Your task to perform on an android device: open app "Lyft - Rideshare, Bikes, Scooters & Transit" Image 0: 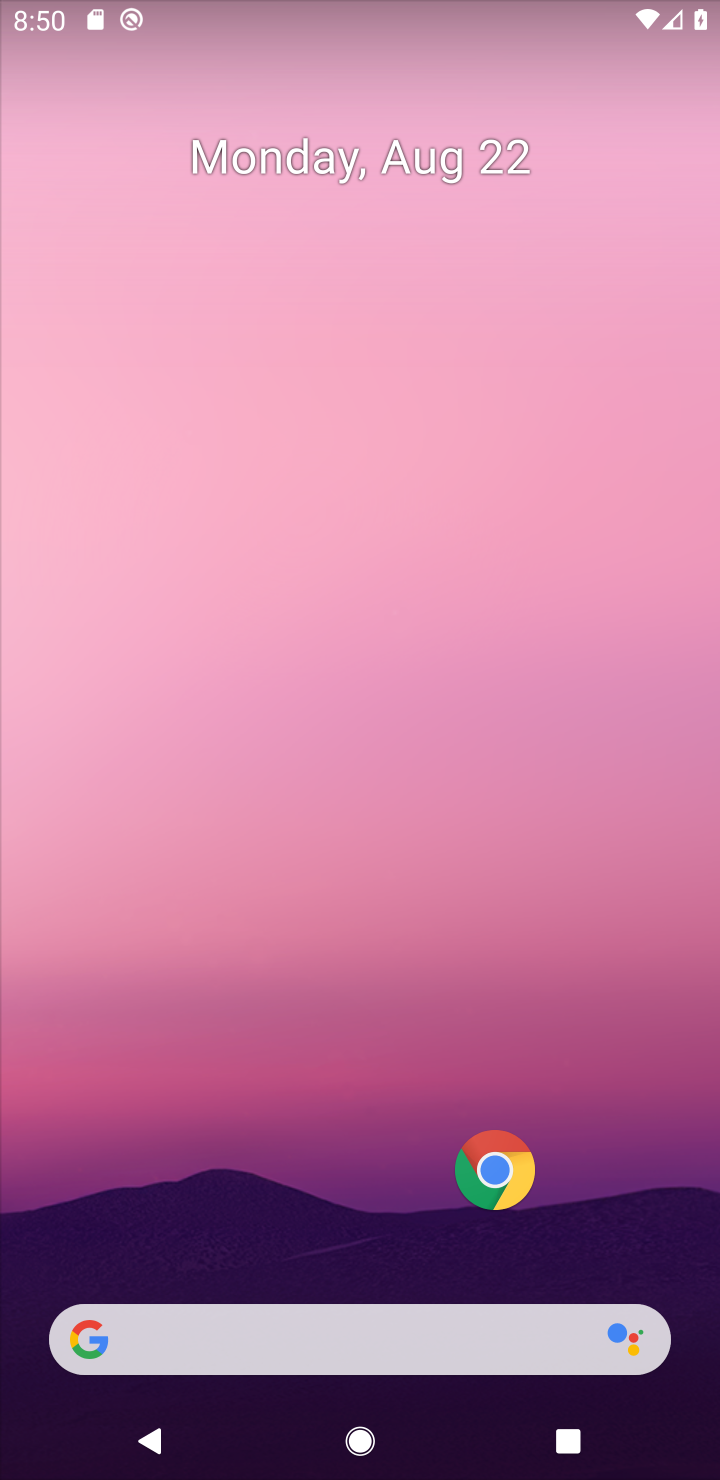
Step 0: drag from (229, 1210) to (439, 53)
Your task to perform on an android device: open app "Lyft - Rideshare, Bikes, Scooters & Transit" Image 1: 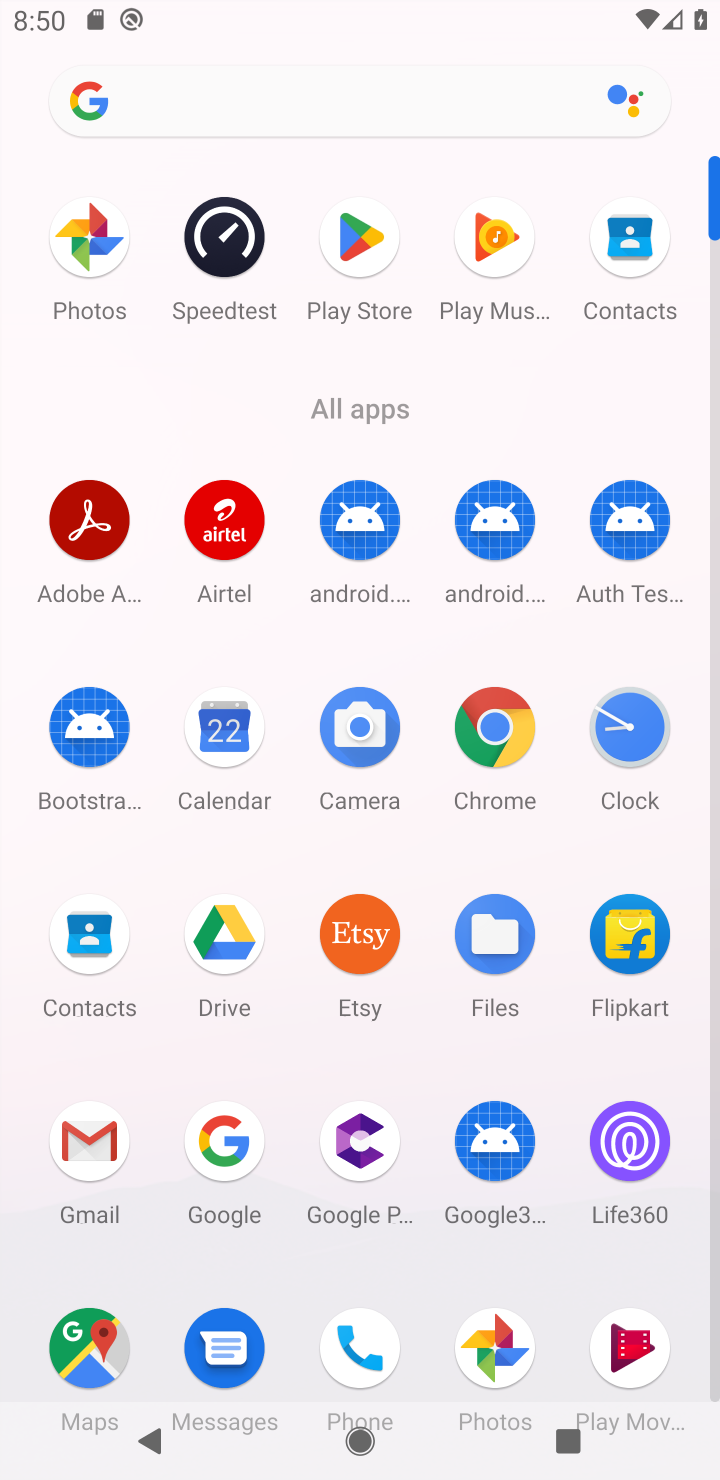
Step 1: click (369, 235)
Your task to perform on an android device: open app "Lyft - Rideshare, Bikes, Scooters & Transit" Image 2: 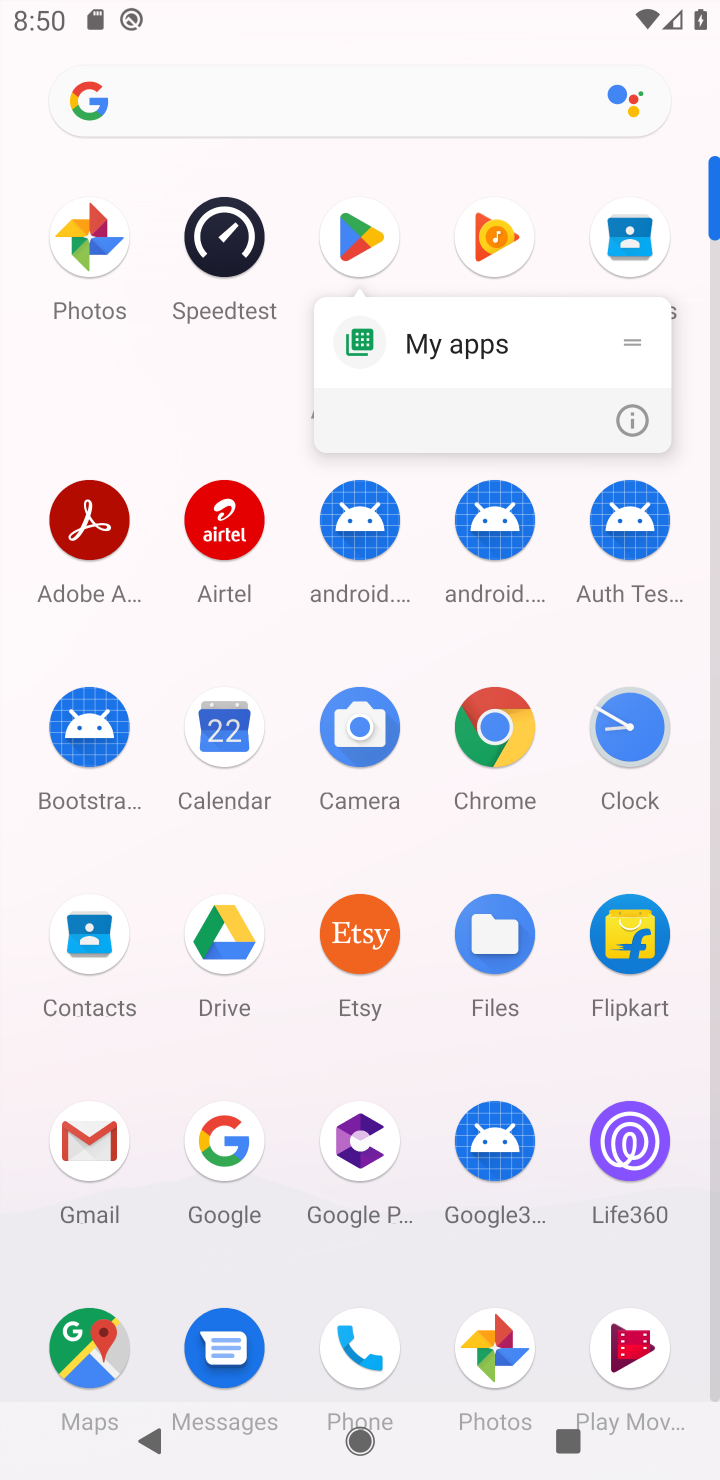
Step 2: click (362, 240)
Your task to perform on an android device: open app "Lyft - Rideshare, Bikes, Scooters & Transit" Image 3: 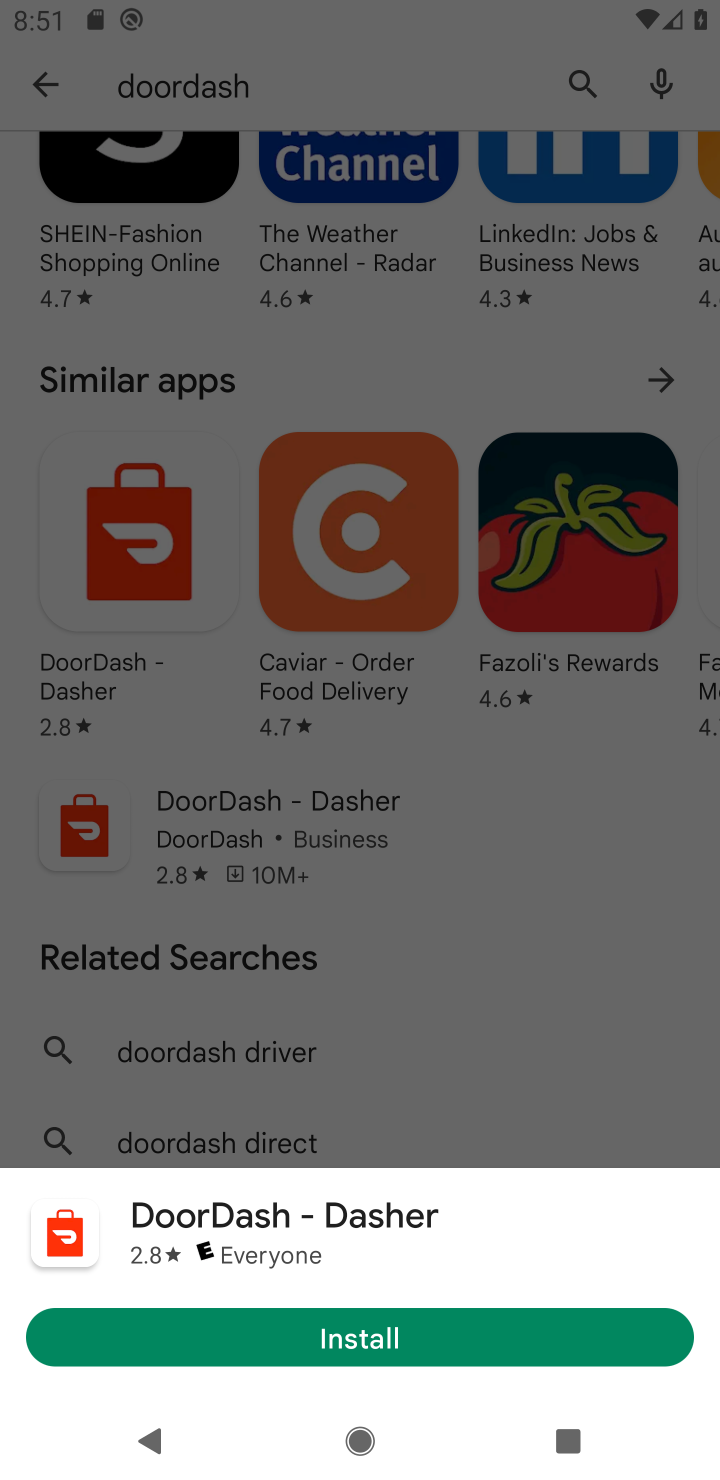
Step 3: click (551, 73)
Your task to perform on an android device: open app "Lyft - Rideshare, Bikes, Scooters & Transit" Image 4: 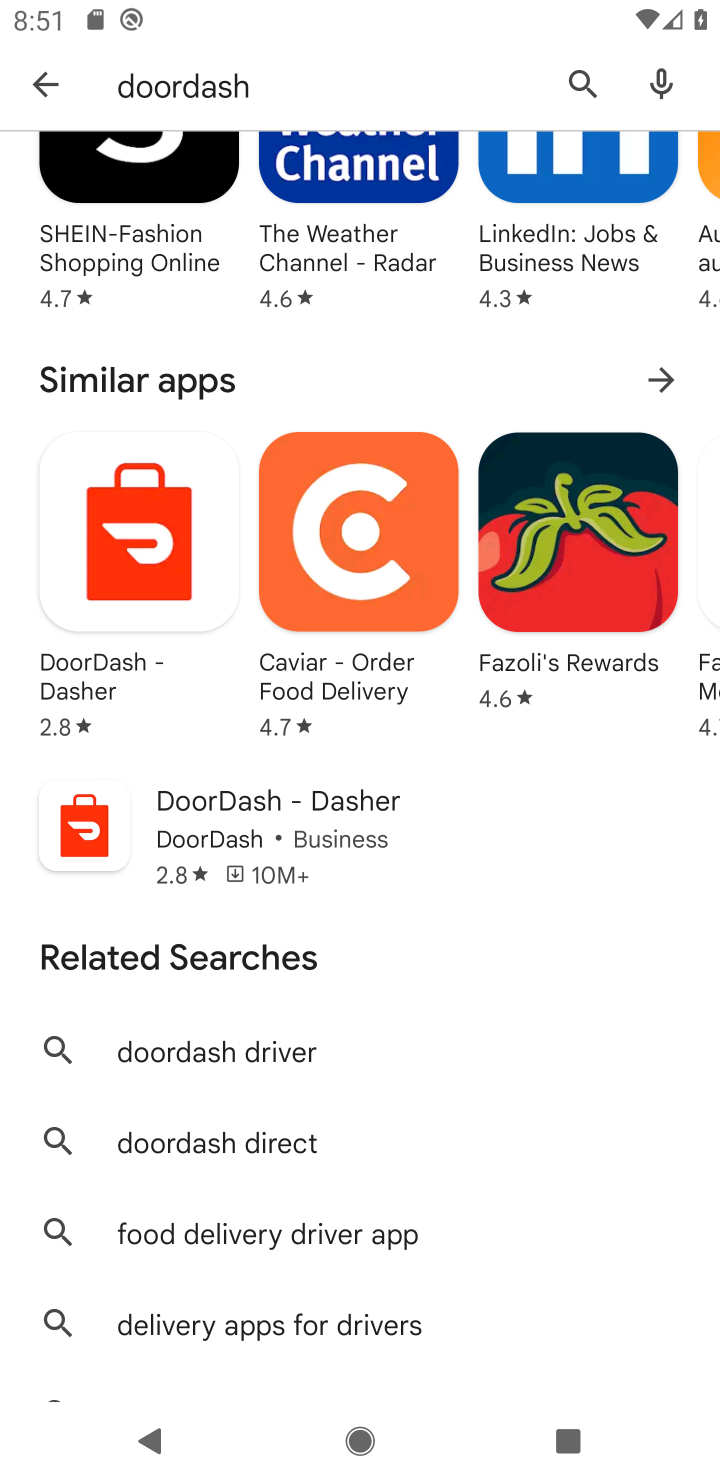
Step 4: click (601, 69)
Your task to perform on an android device: open app "Lyft - Rideshare, Bikes, Scooters & Transit" Image 5: 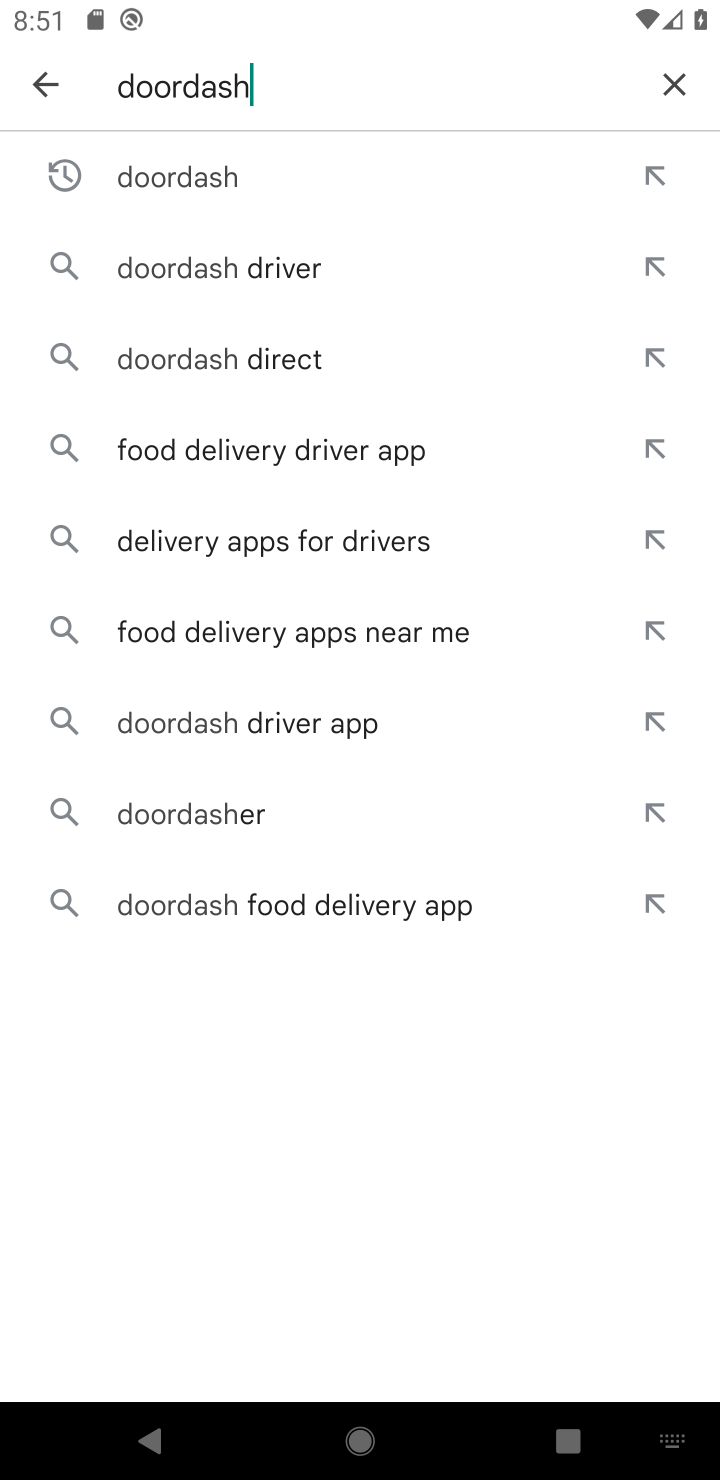
Step 5: click (675, 84)
Your task to perform on an android device: open app "Lyft - Rideshare, Bikes, Scooters & Transit" Image 6: 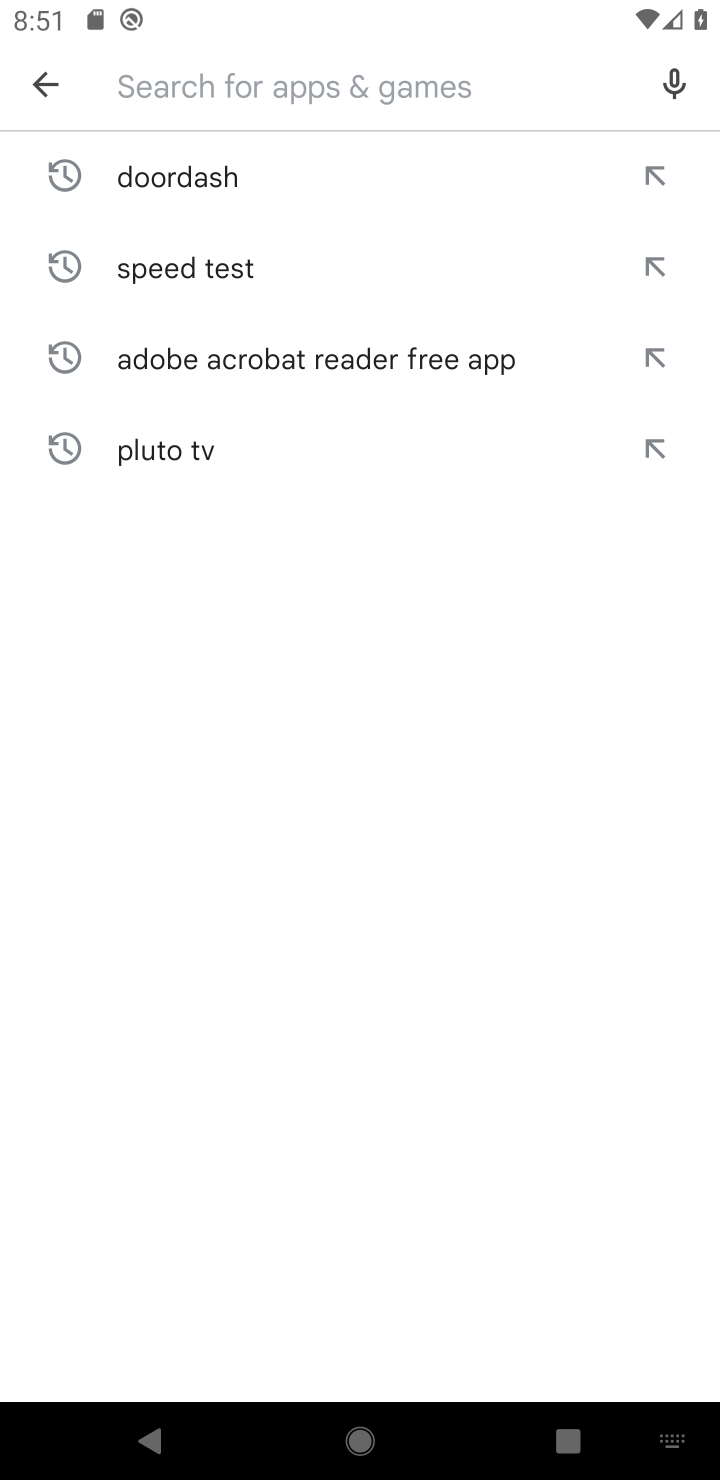
Step 6: click (448, 86)
Your task to perform on an android device: open app "Lyft - Rideshare, Bikes, Scooters & Transit" Image 7: 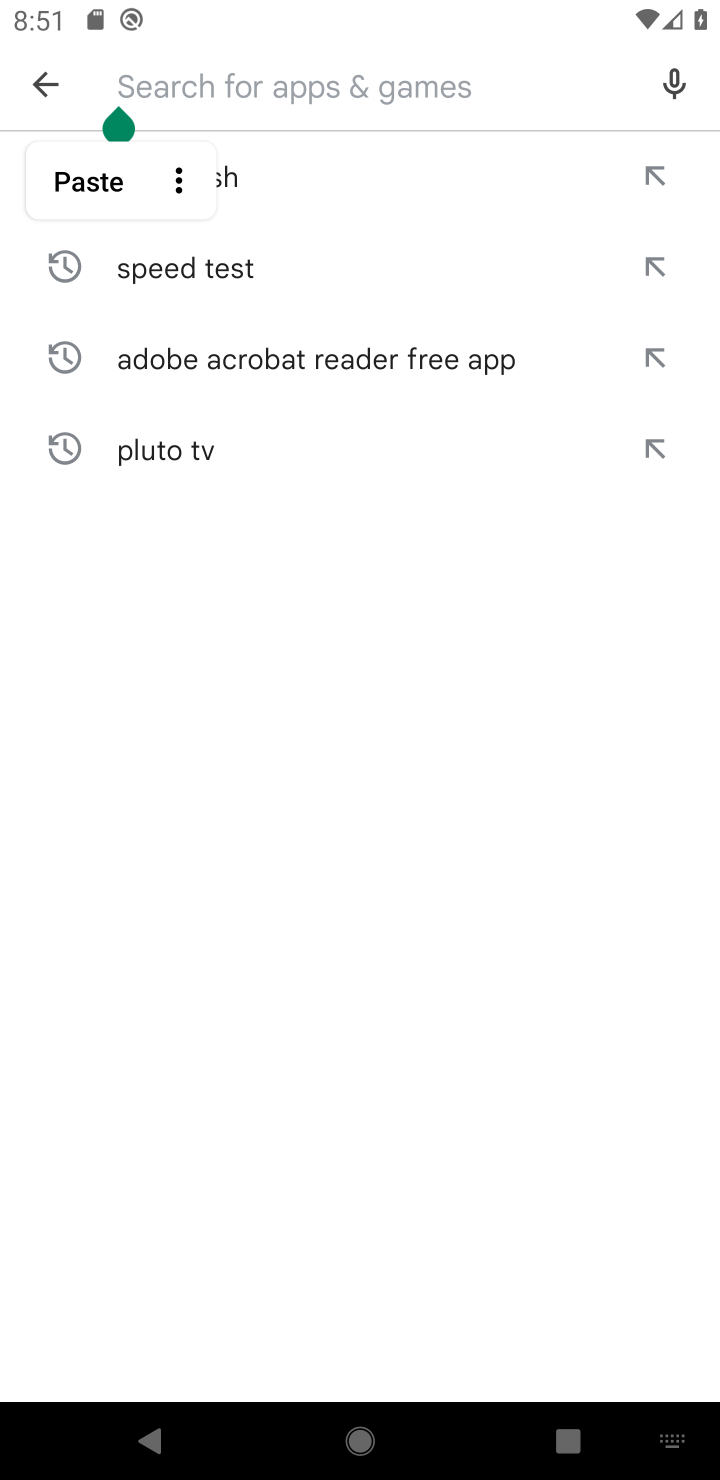
Step 7: type "lyft"
Your task to perform on an android device: open app "Lyft - Rideshare, Bikes, Scooters & Transit" Image 8: 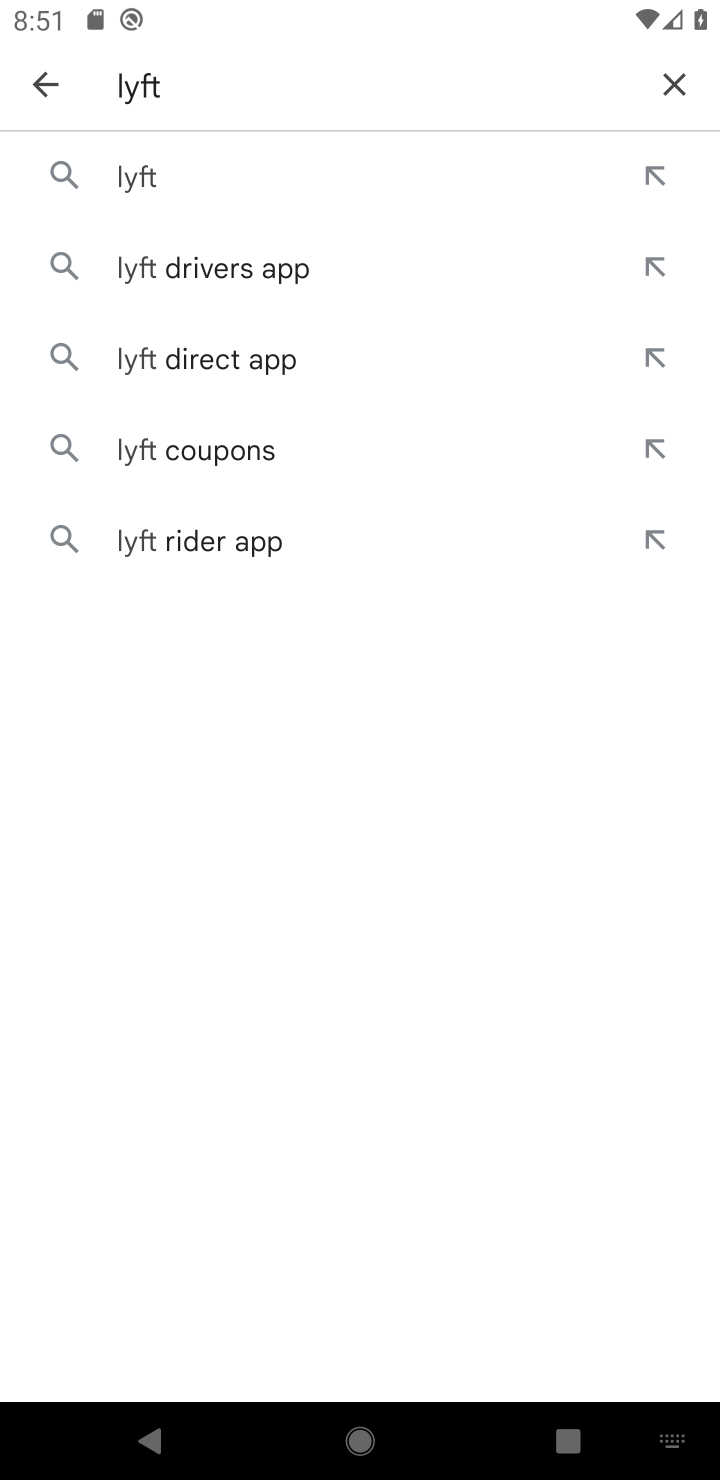
Step 8: click (306, 164)
Your task to perform on an android device: open app "Lyft - Rideshare, Bikes, Scooters & Transit" Image 9: 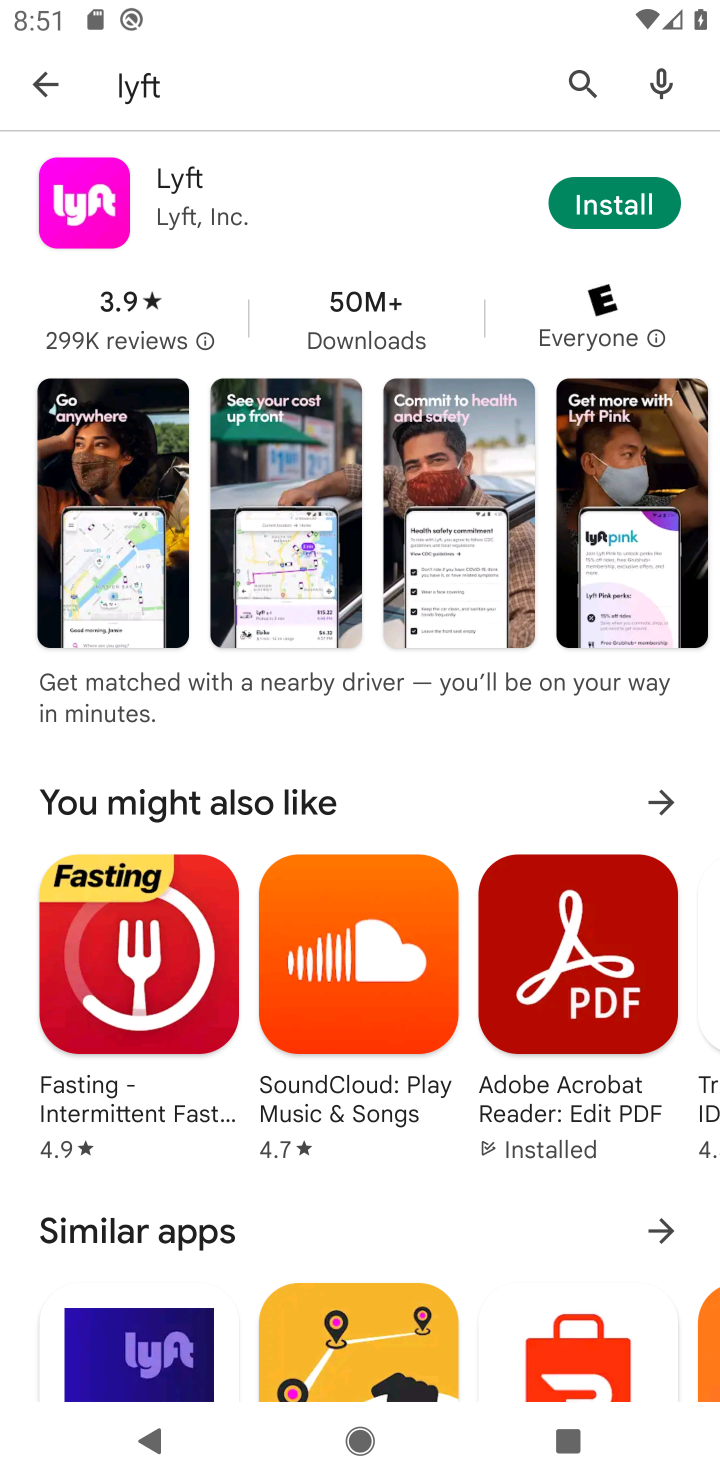
Step 9: task complete